Your task to perform on an android device: What is the news today? Image 0: 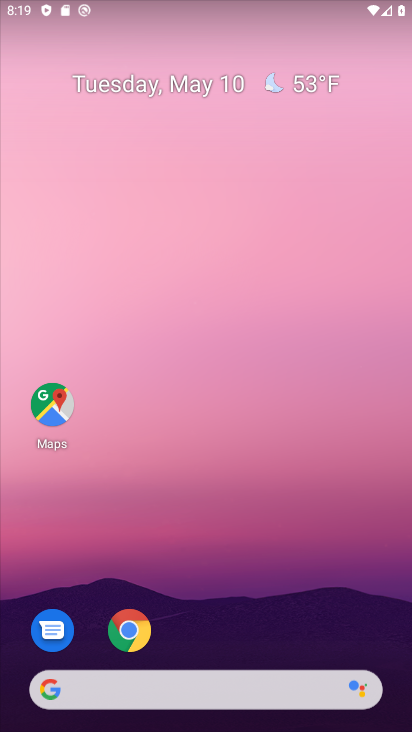
Step 0: drag from (2, 289) to (403, 287)
Your task to perform on an android device: What is the news today? Image 1: 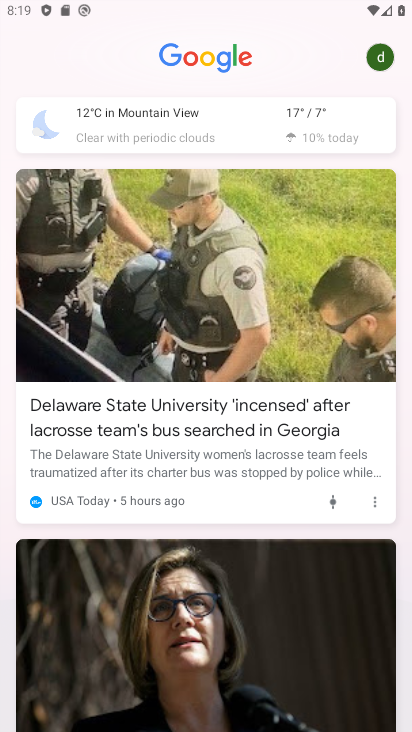
Step 1: task complete